Your task to perform on an android device: turn on translation in the chrome app Image 0: 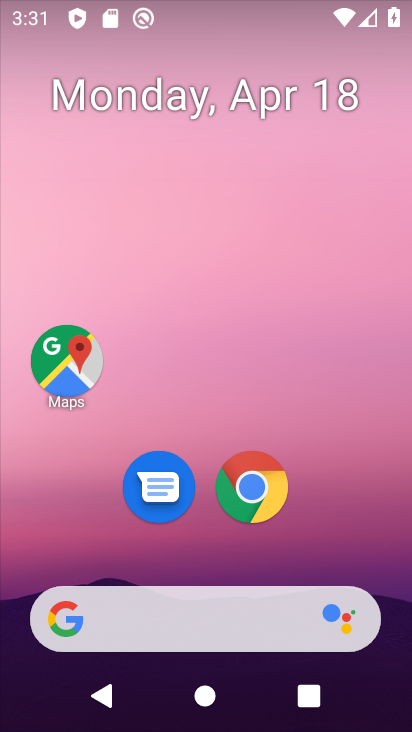
Step 0: click (269, 479)
Your task to perform on an android device: turn on translation in the chrome app Image 1: 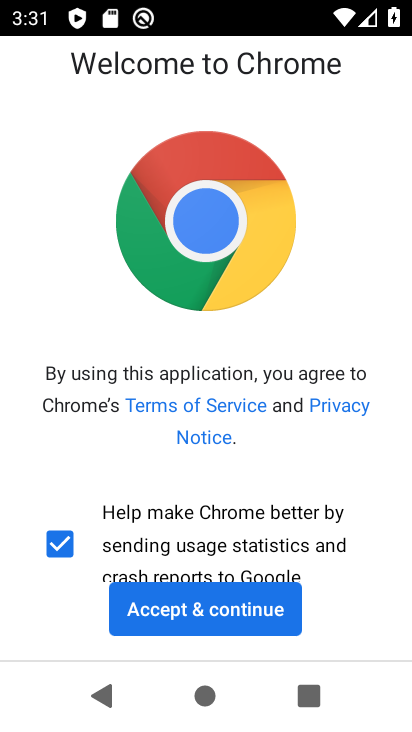
Step 1: click (204, 617)
Your task to perform on an android device: turn on translation in the chrome app Image 2: 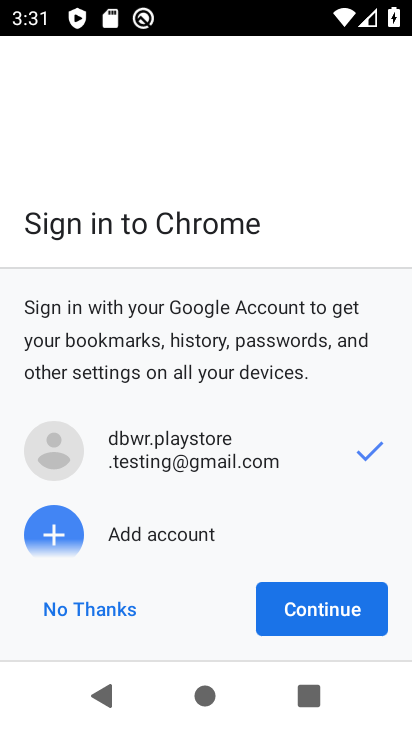
Step 2: click (305, 585)
Your task to perform on an android device: turn on translation in the chrome app Image 3: 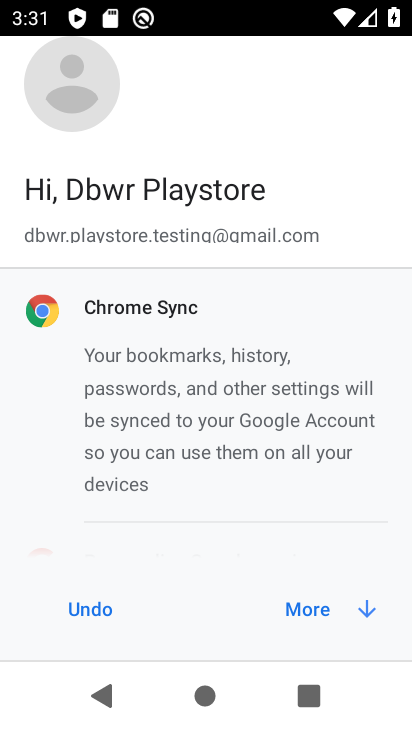
Step 3: click (324, 607)
Your task to perform on an android device: turn on translation in the chrome app Image 4: 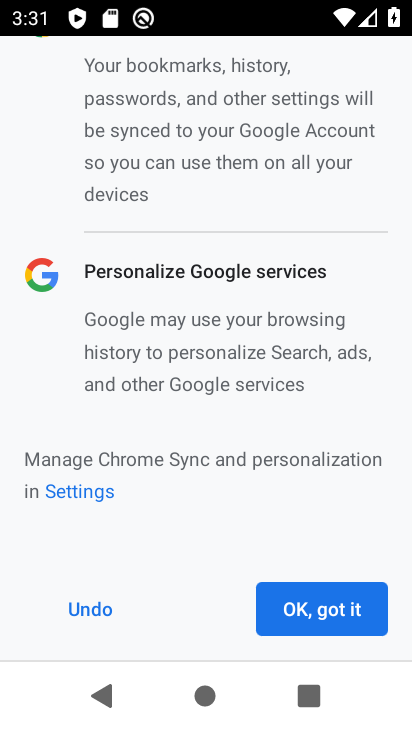
Step 4: click (338, 603)
Your task to perform on an android device: turn on translation in the chrome app Image 5: 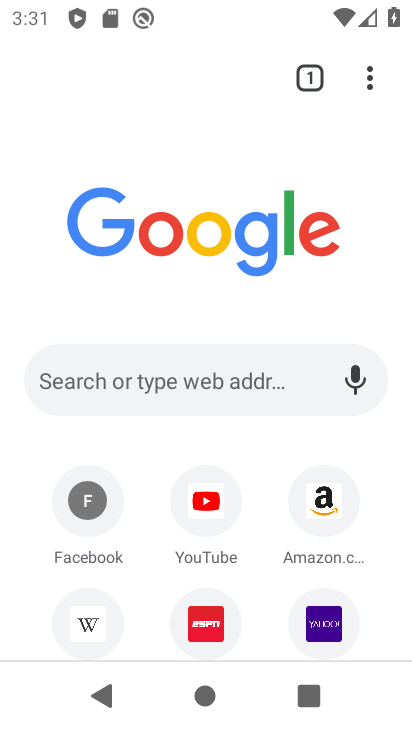
Step 5: click (366, 76)
Your task to perform on an android device: turn on translation in the chrome app Image 6: 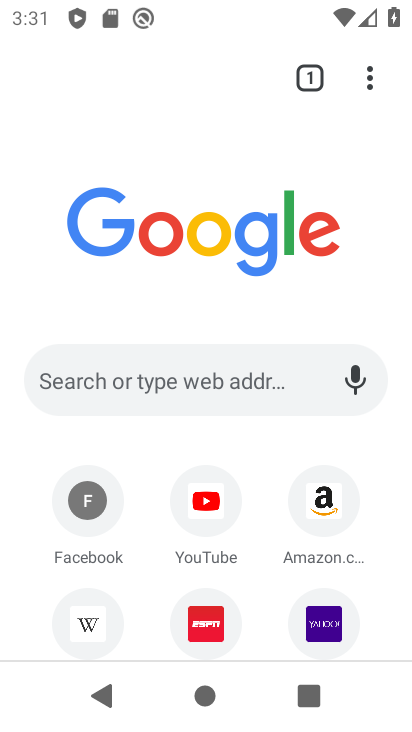
Step 6: click (371, 72)
Your task to perform on an android device: turn on translation in the chrome app Image 7: 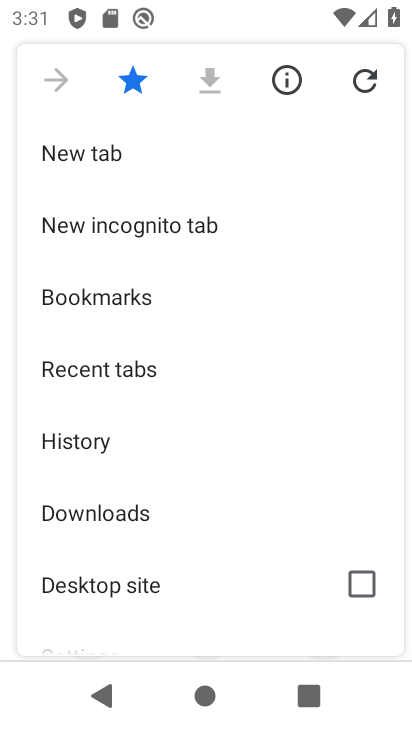
Step 7: drag from (200, 526) to (194, 121)
Your task to perform on an android device: turn on translation in the chrome app Image 8: 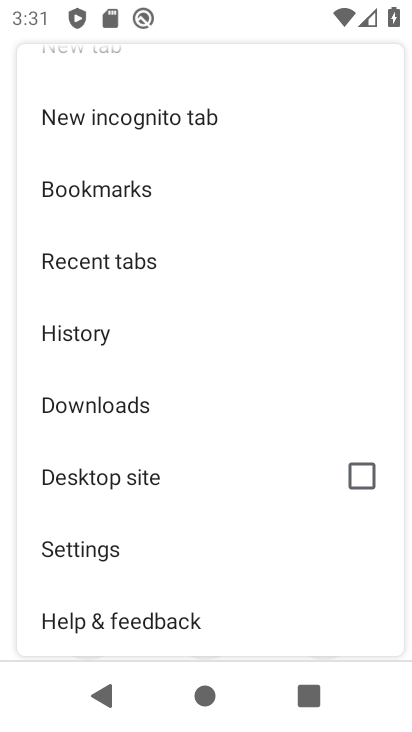
Step 8: click (97, 544)
Your task to perform on an android device: turn on translation in the chrome app Image 9: 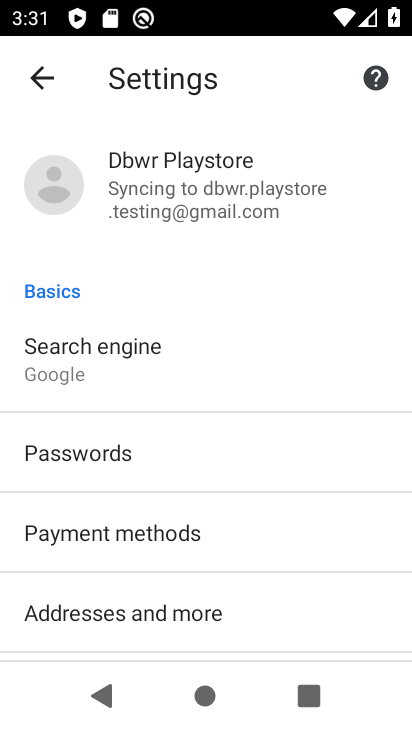
Step 9: drag from (153, 566) to (154, 138)
Your task to perform on an android device: turn on translation in the chrome app Image 10: 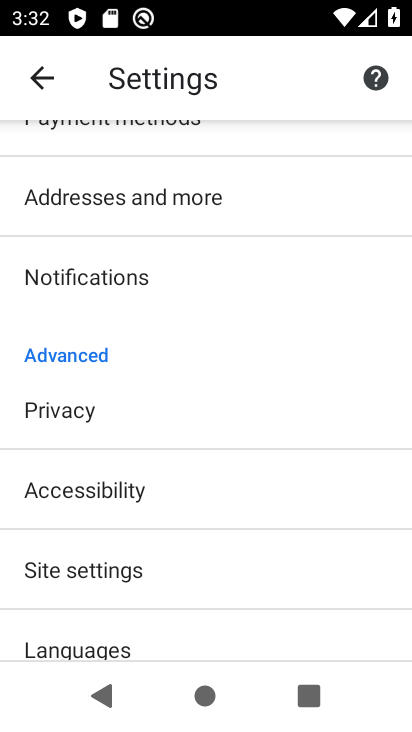
Step 10: click (105, 631)
Your task to perform on an android device: turn on translation in the chrome app Image 11: 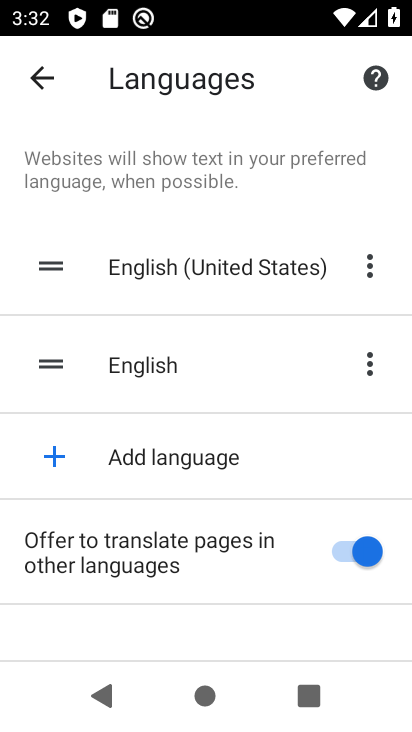
Step 11: task complete